Your task to perform on an android device: Show me productivity apps on the Play Store Image 0: 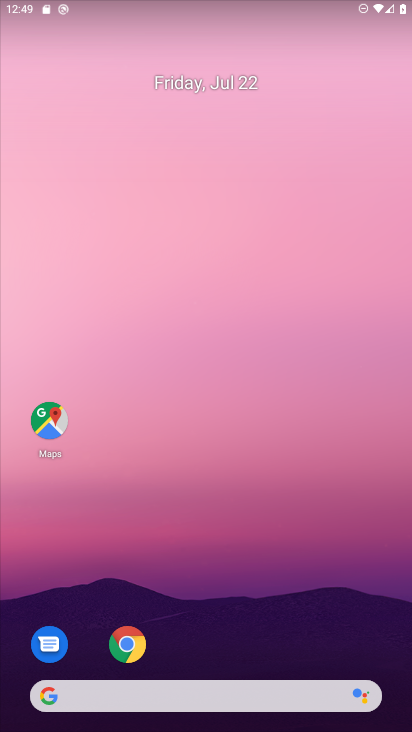
Step 0: drag from (196, 640) to (152, 80)
Your task to perform on an android device: Show me productivity apps on the Play Store Image 1: 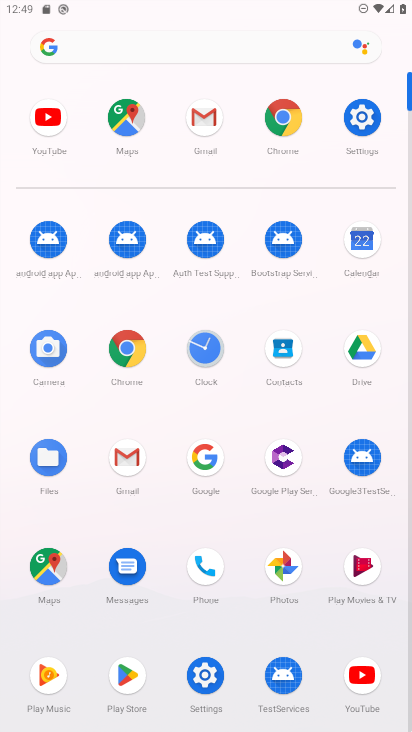
Step 1: click (143, 672)
Your task to perform on an android device: Show me productivity apps on the Play Store Image 2: 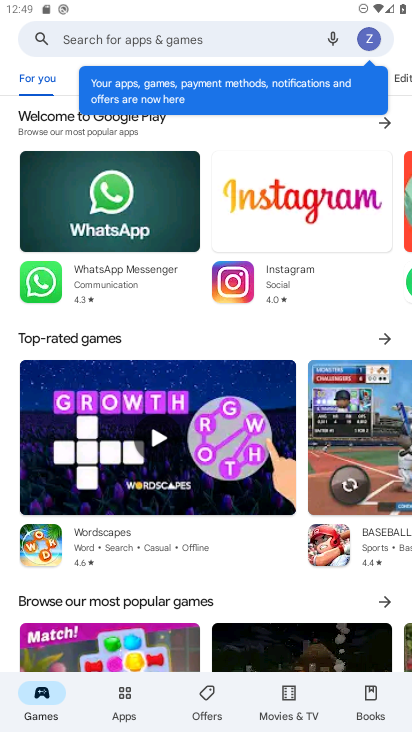
Step 2: click (135, 710)
Your task to perform on an android device: Show me productivity apps on the Play Store Image 3: 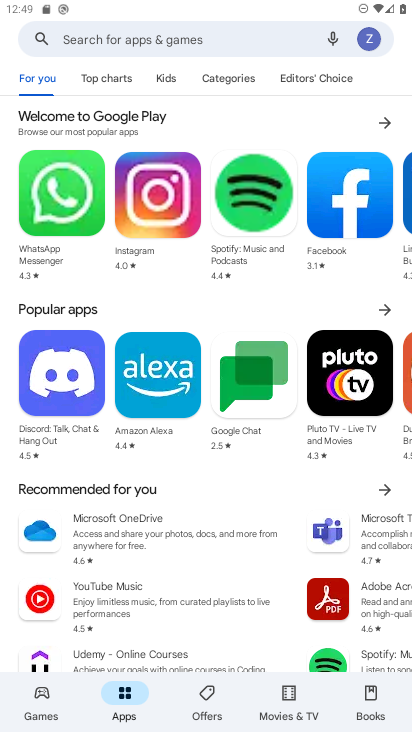
Step 3: click (98, 86)
Your task to perform on an android device: Show me productivity apps on the Play Store Image 4: 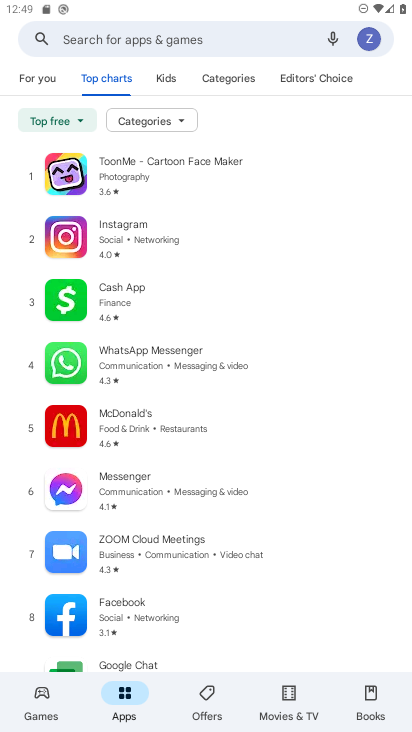
Step 4: click (210, 79)
Your task to perform on an android device: Show me productivity apps on the Play Store Image 5: 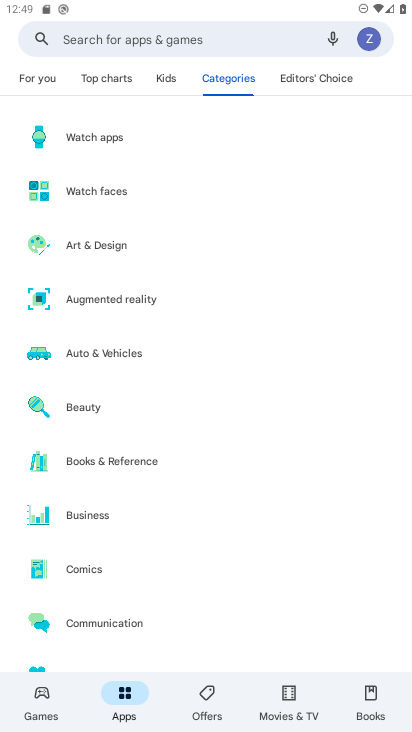
Step 5: drag from (219, 599) to (186, 53)
Your task to perform on an android device: Show me productivity apps on the Play Store Image 6: 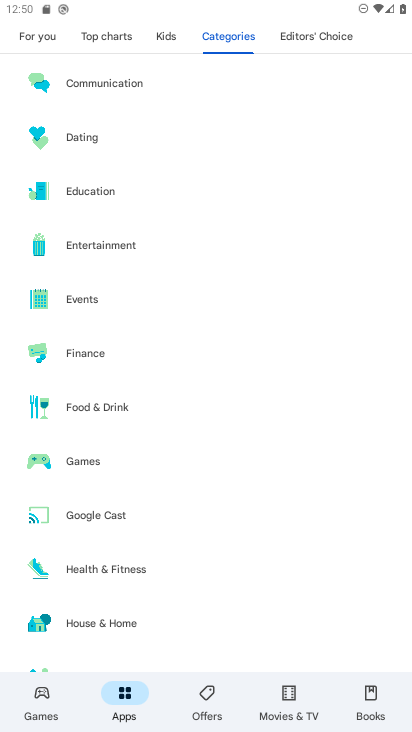
Step 6: drag from (93, 570) to (194, 5)
Your task to perform on an android device: Show me productivity apps on the Play Store Image 7: 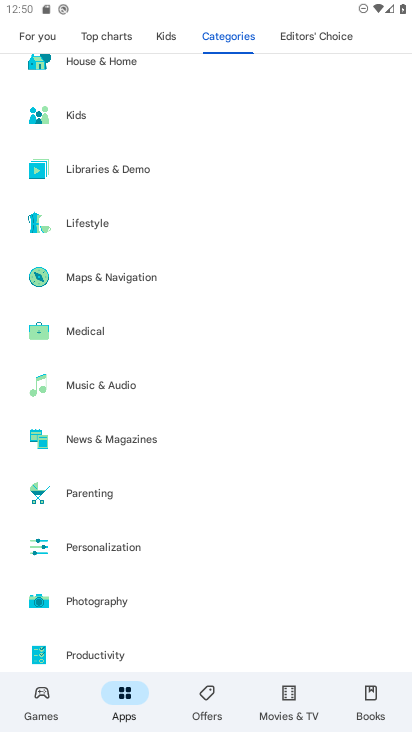
Step 7: click (101, 652)
Your task to perform on an android device: Show me productivity apps on the Play Store Image 8: 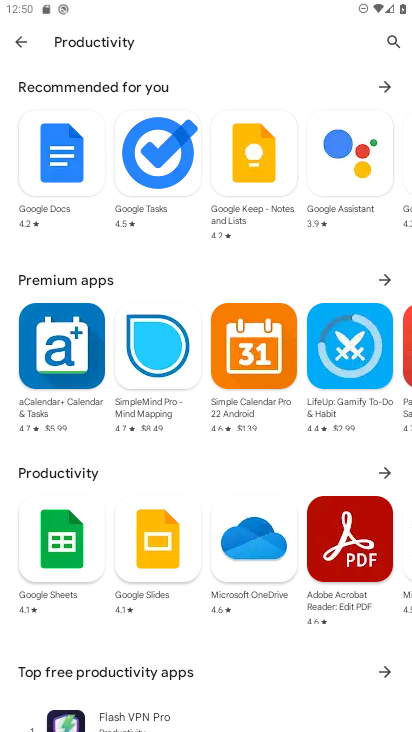
Step 8: task complete